Your task to perform on an android device: Open Android settings Image 0: 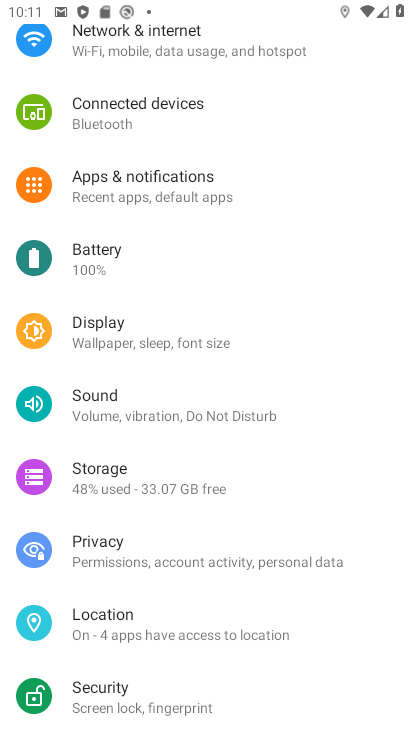
Step 0: press home button
Your task to perform on an android device: Open Android settings Image 1: 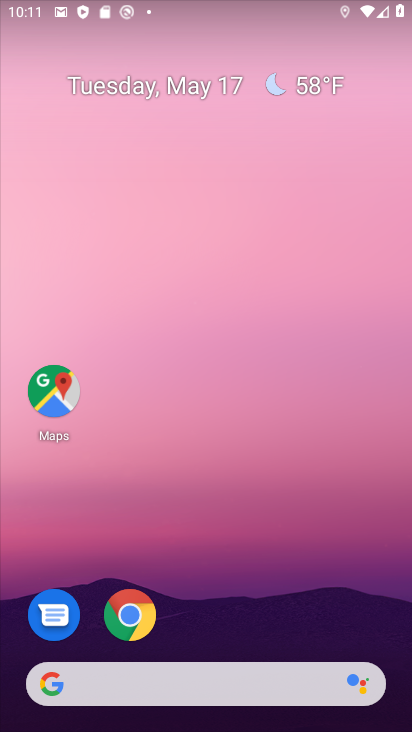
Step 1: drag from (225, 625) to (207, 233)
Your task to perform on an android device: Open Android settings Image 2: 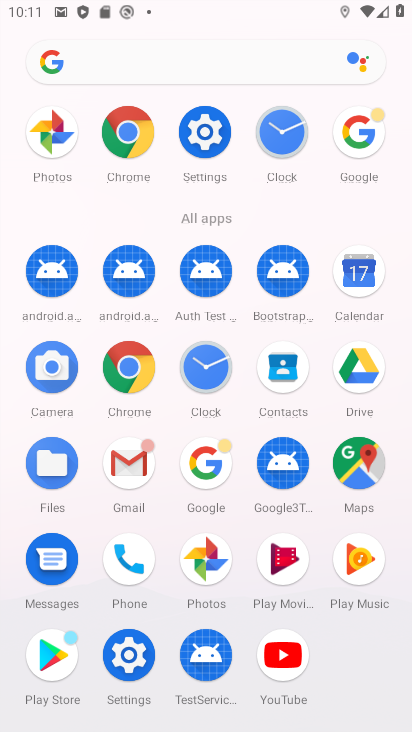
Step 2: click (206, 119)
Your task to perform on an android device: Open Android settings Image 3: 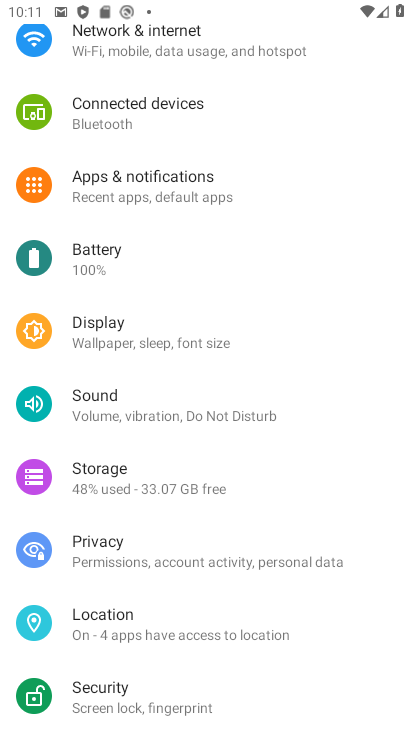
Step 3: task complete